Your task to perform on an android device: Open Google Chrome and click the shortcut for Amazon.com Image 0: 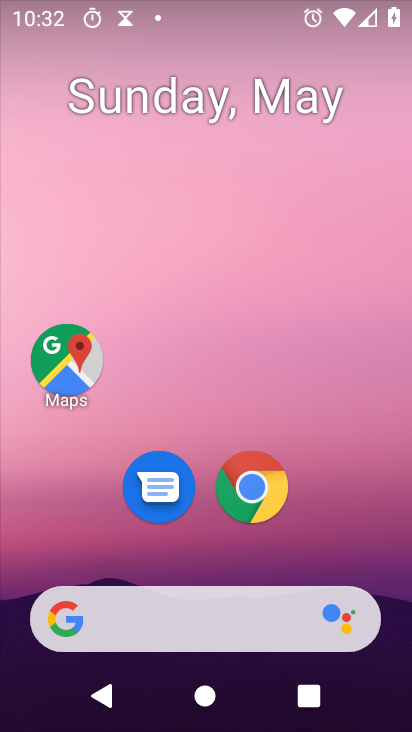
Step 0: drag from (361, 553) to (412, 213)
Your task to perform on an android device: Open Google Chrome and click the shortcut for Amazon.com Image 1: 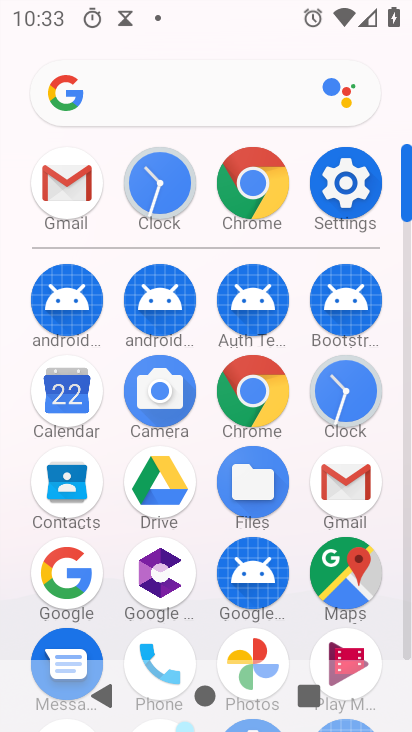
Step 1: click (269, 205)
Your task to perform on an android device: Open Google Chrome and click the shortcut for Amazon.com Image 2: 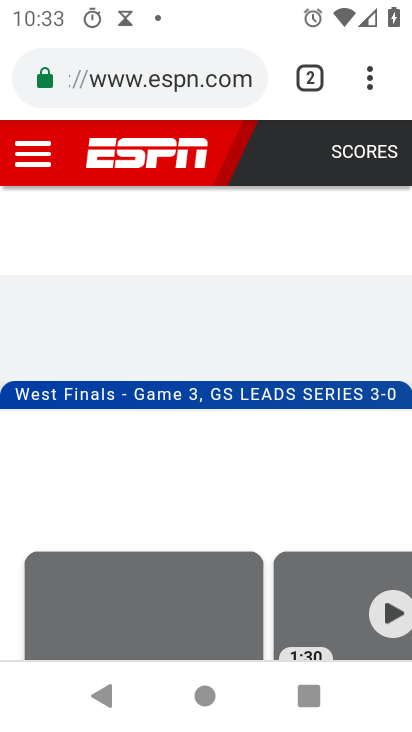
Step 2: click (208, 91)
Your task to perform on an android device: Open Google Chrome and click the shortcut for Amazon.com Image 3: 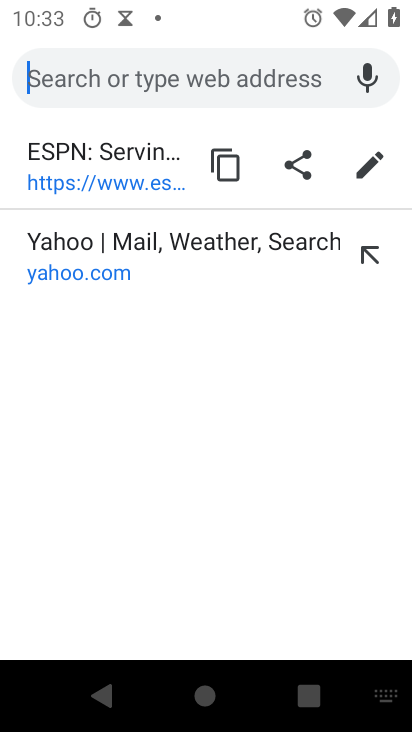
Step 3: type "amazon"
Your task to perform on an android device: Open Google Chrome and click the shortcut for Amazon.com Image 4: 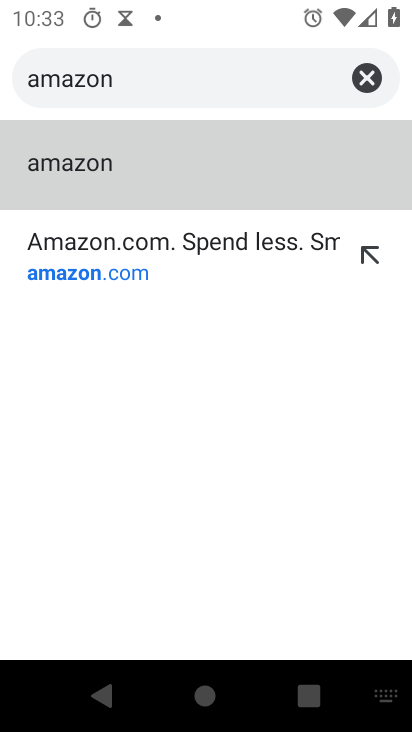
Step 4: click (134, 176)
Your task to perform on an android device: Open Google Chrome and click the shortcut for Amazon.com Image 5: 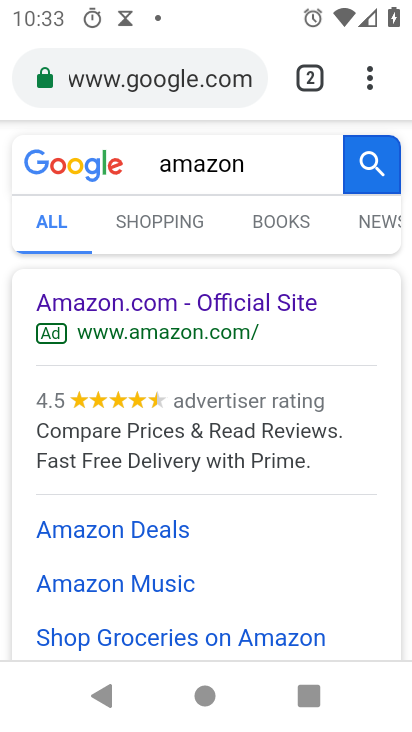
Step 5: click (199, 313)
Your task to perform on an android device: Open Google Chrome and click the shortcut for Amazon.com Image 6: 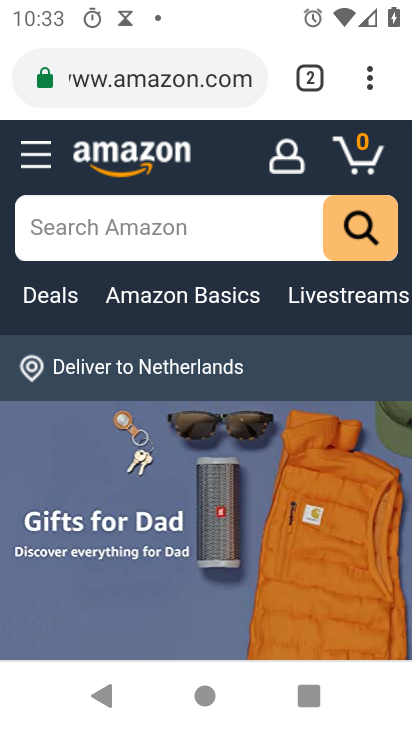
Step 6: task complete